Your task to perform on an android device: Open location settings Image 0: 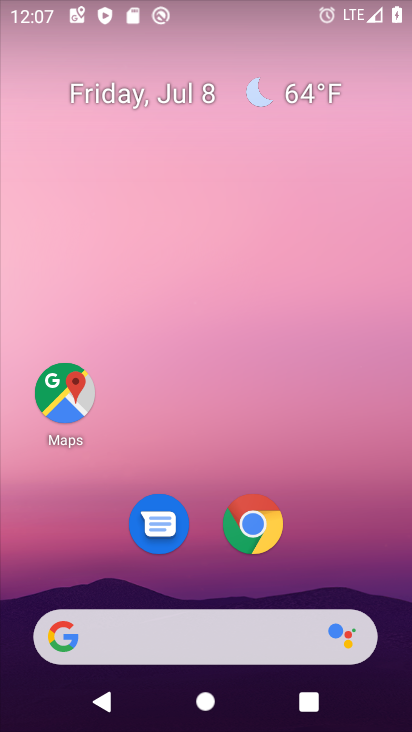
Step 0: drag from (327, 537) to (308, 14)
Your task to perform on an android device: Open location settings Image 1: 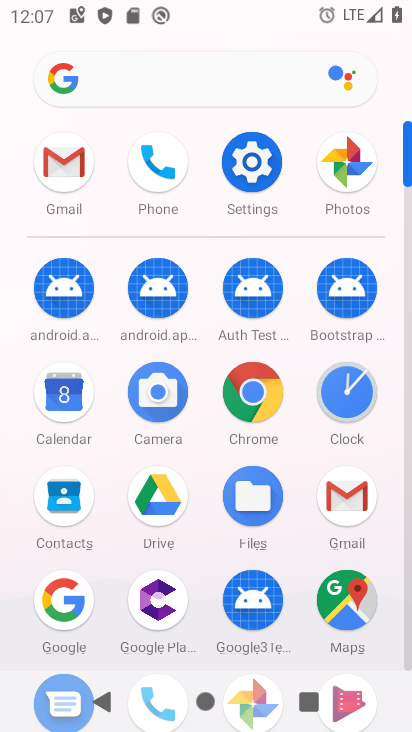
Step 1: click (257, 167)
Your task to perform on an android device: Open location settings Image 2: 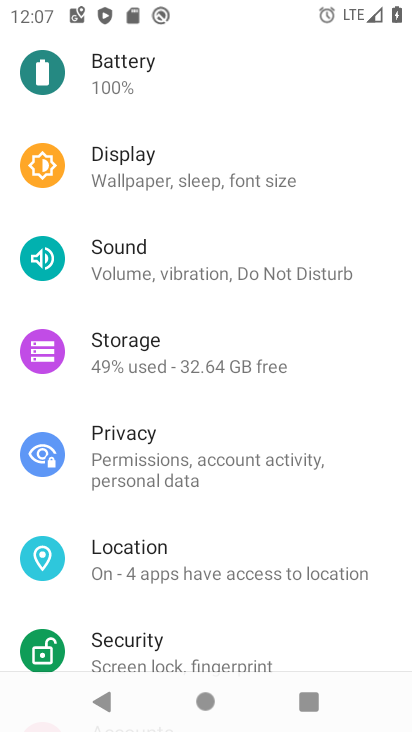
Step 2: click (206, 555)
Your task to perform on an android device: Open location settings Image 3: 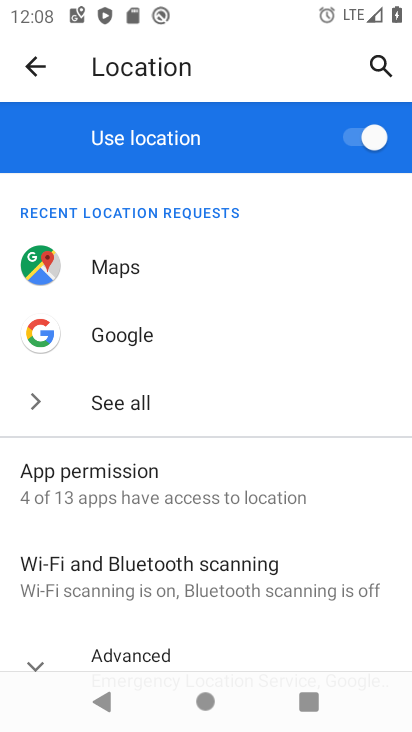
Step 3: task complete